Your task to perform on an android device: Show me the alarms in the clock app Image 0: 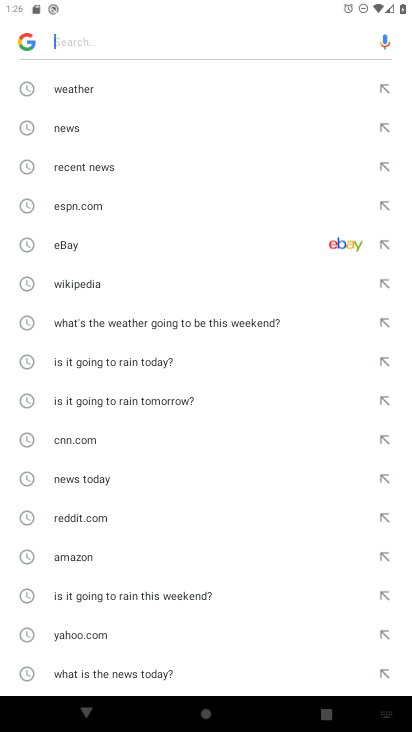
Step 0: press home button
Your task to perform on an android device: Show me the alarms in the clock app Image 1: 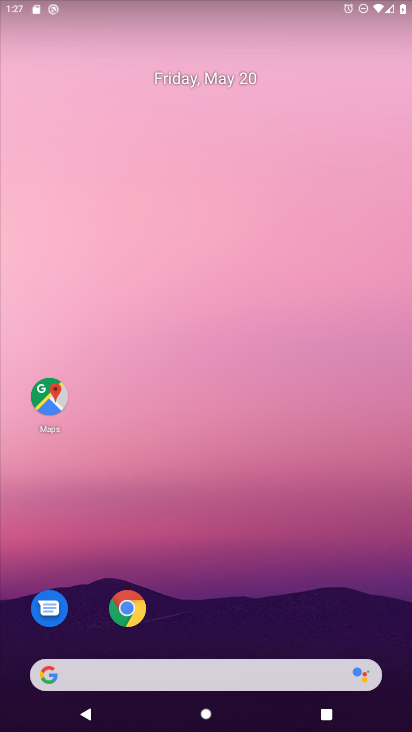
Step 1: drag from (336, 610) to (346, 127)
Your task to perform on an android device: Show me the alarms in the clock app Image 2: 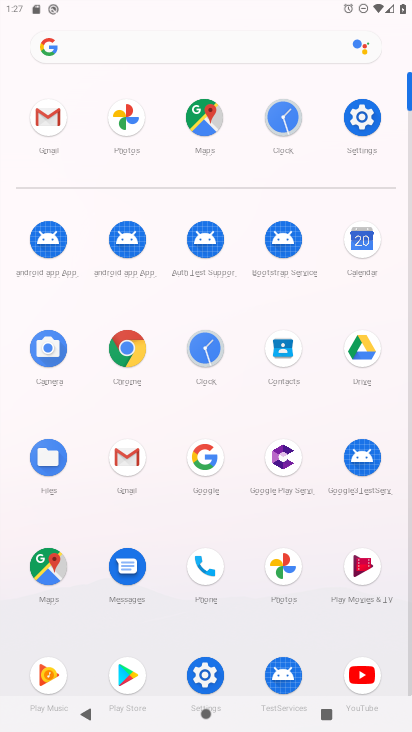
Step 2: click (138, 111)
Your task to perform on an android device: Show me the alarms in the clock app Image 3: 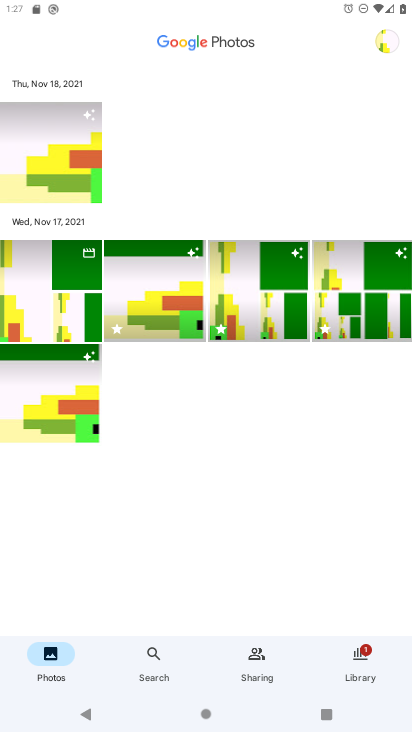
Step 3: press home button
Your task to perform on an android device: Show me the alarms in the clock app Image 4: 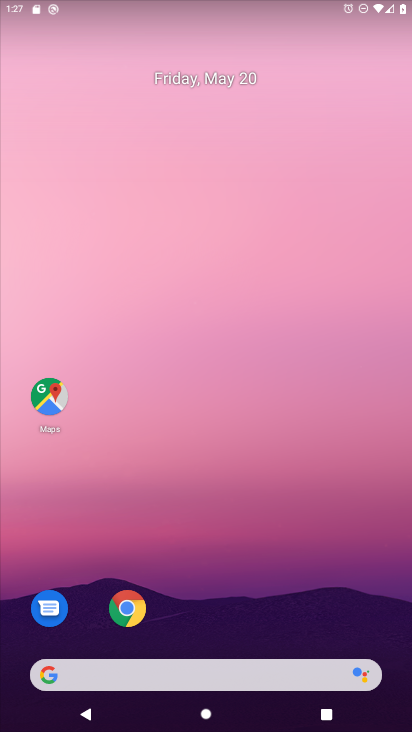
Step 4: drag from (371, 613) to (356, 65)
Your task to perform on an android device: Show me the alarms in the clock app Image 5: 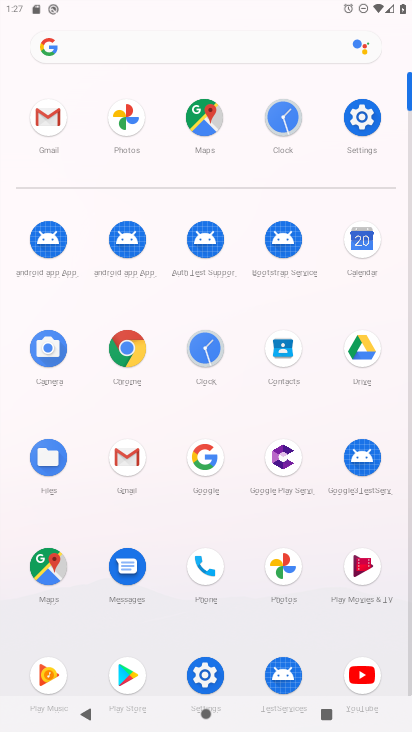
Step 5: click (193, 350)
Your task to perform on an android device: Show me the alarms in the clock app Image 6: 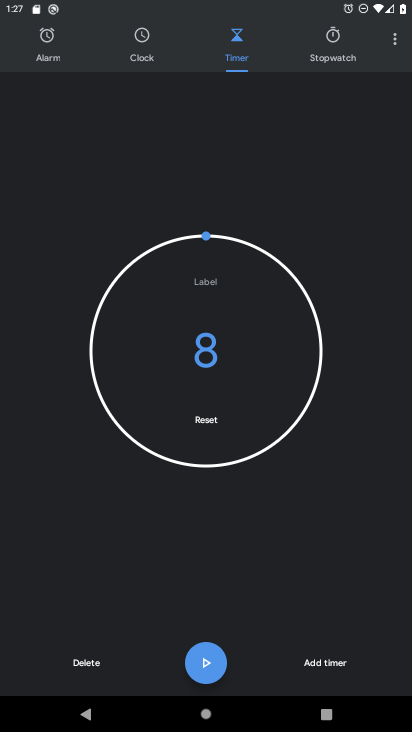
Step 6: click (49, 62)
Your task to perform on an android device: Show me the alarms in the clock app Image 7: 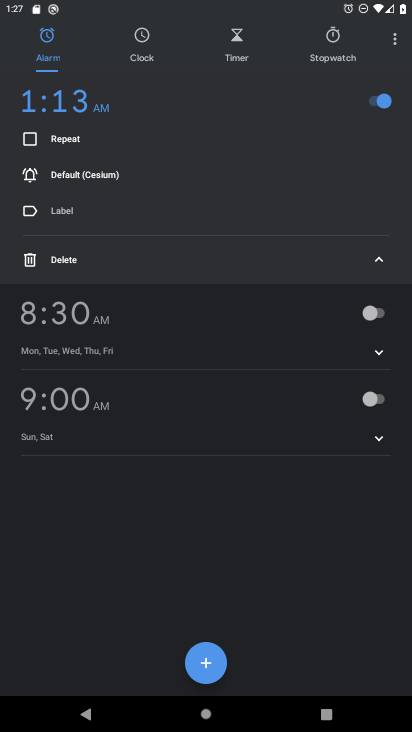
Step 7: task complete